Your task to perform on an android device: Open the calendar app, open the side menu, and click the "Day" option Image 0: 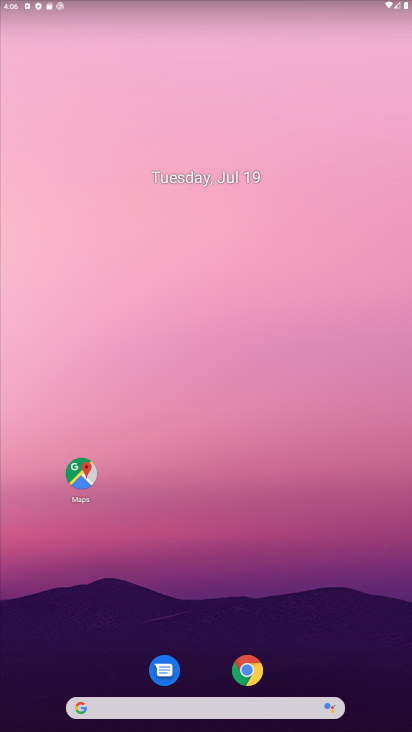
Step 0: drag from (256, 677) to (259, 204)
Your task to perform on an android device: Open the calendar app, open the side menu, and click the "Day" option Image 1: 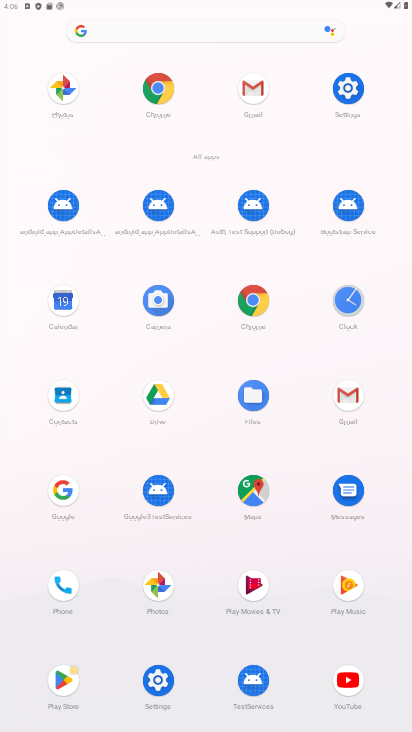
Step 1: click (66, 398)
Your task to perform on an android device: Open the calendar app, open the side menu, and click the "Day" option Image 2: 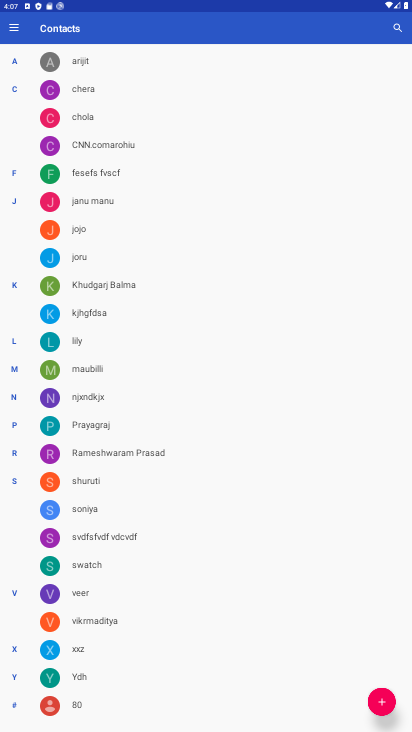
Step 2: click (14, 27)
Your task to perform on an android device: Open the calendar app, open the side menu, and click the "Day" option Image 3: 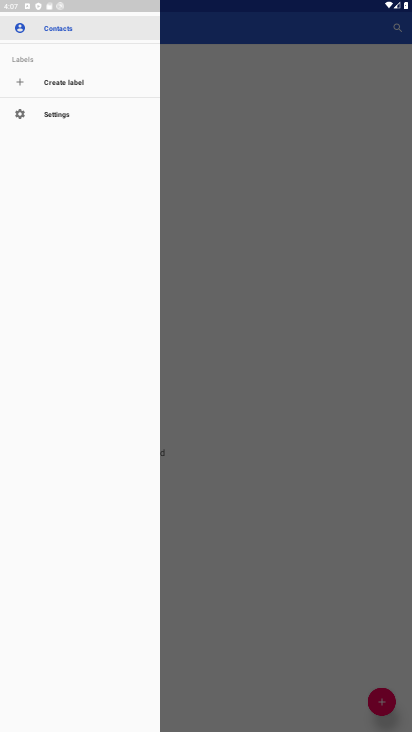
Step 3: click (233, 160)
Your task to perform on an android device: Open the calendar app, open the side menu, and click the "Day" option Image 4: 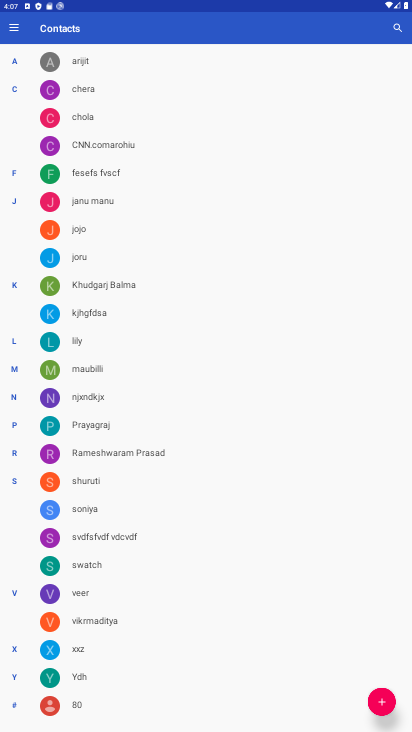
Step 4: press home button
Your task to perform on an android device: Open the calendar app, open the side menu, and click the "Day" option Image 5: 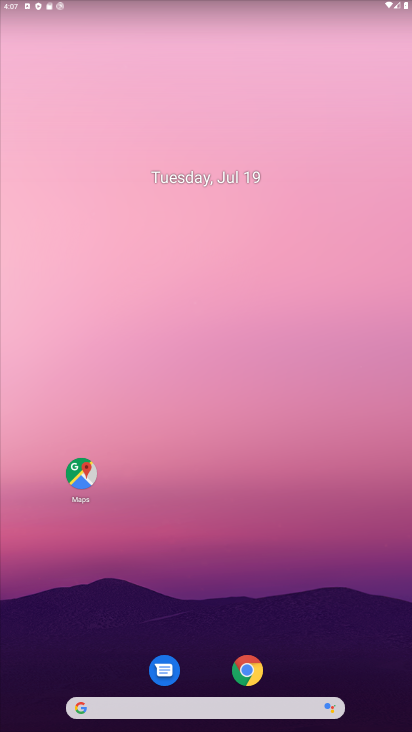
Step 5: drag from (199, 701) to (248, 96)
Your task to perform on an android device: Open the calendar app, open the side menu, and click the "Day" option Image 6: 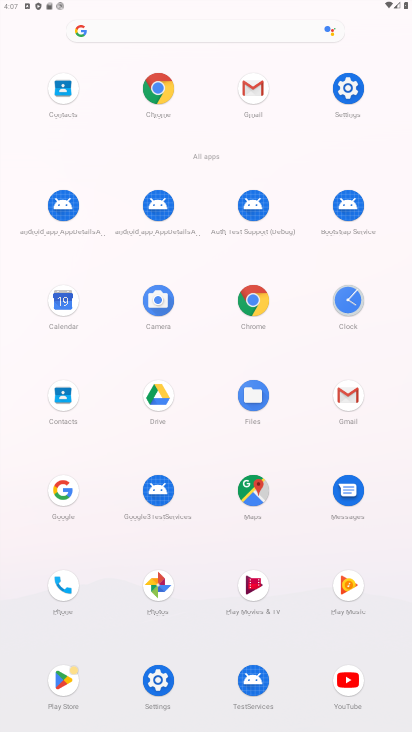
Step 6: click (66, 302)
Your task to perform on an android device: Open the calendar app, open the side menu, and click the "Day" option Image 7: 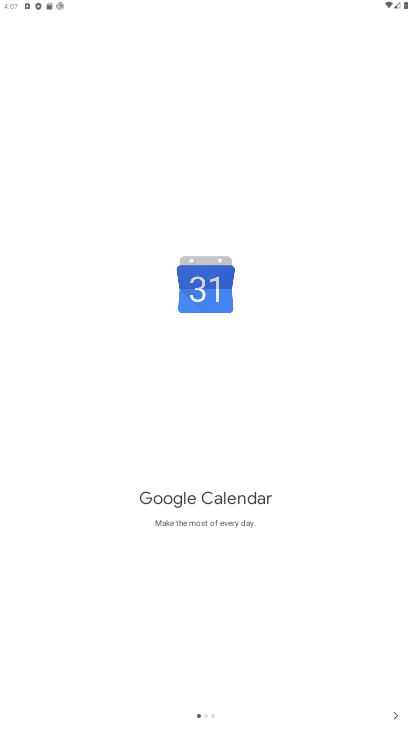
Step 7: click (403, 715)
Your task to perform on an android device: Open the calendar app, open the side menu, and click the "Day" option Image 8: 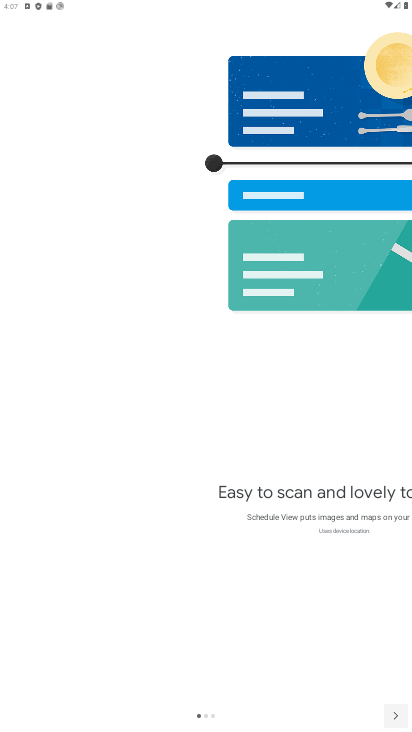
Step 8: click (399, 719)
Your task to perform on an android device: Open the calendar app, open the side menu, and click the "Day" option Image 9: 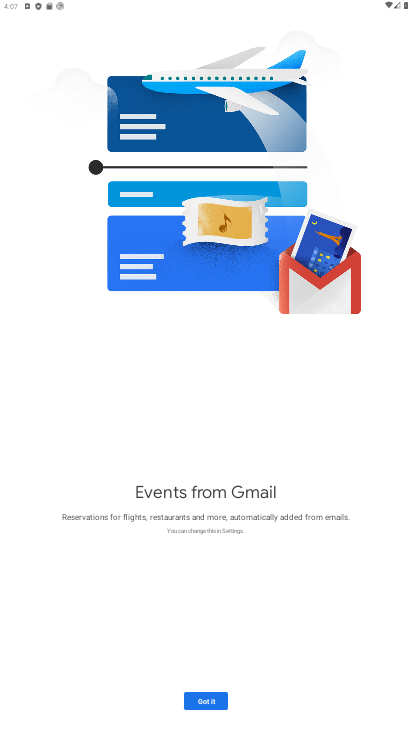
Step 9: click (225, 699)
Your task to perform on an android device: Open the calendar app, open the side menu, and click the "Day" option Image 10: 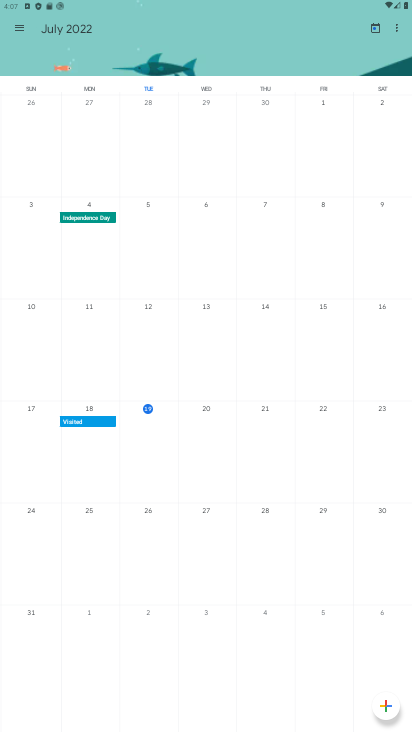
Step 10: click (13, 22)
Your task to perform on an android device: Open the calendar app, open the side menu, and click the "Day" option Image 11: 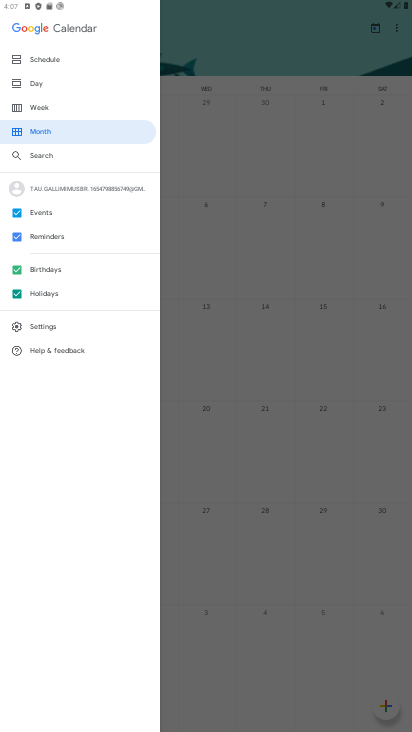
Step 11: click (38, 84)
Your task to perform on an android device: Open the calendar app, open the side menu, and click the "Day" option Image 12: 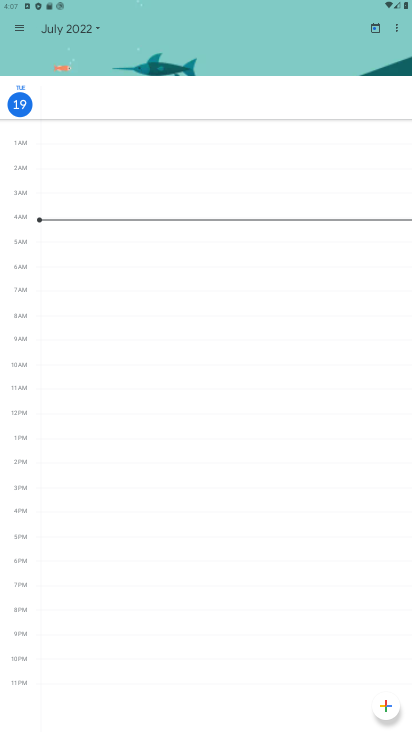
Step 12: task complete